Your task to perform on an android device: check google app version Image 0: 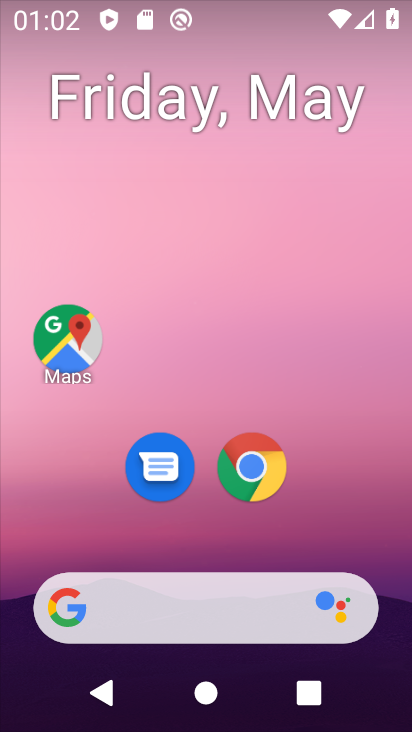
Step 0: press home button
Your task to perform on an android device: check google app version Image 1: 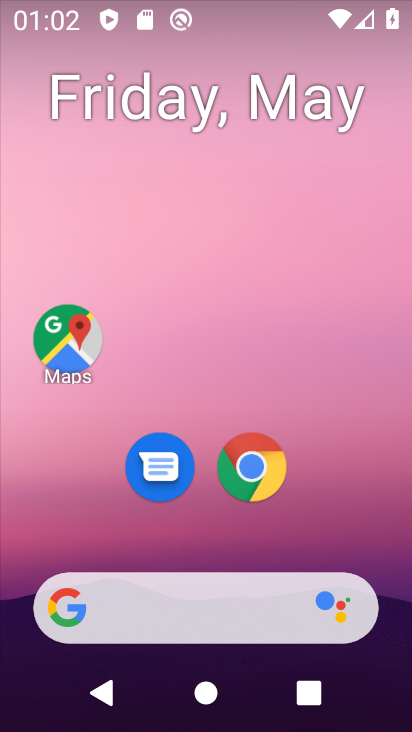
Step 1: drag from (234, 625) to (247, 270)
Your task to perform on an android device: check google app version Image 2: 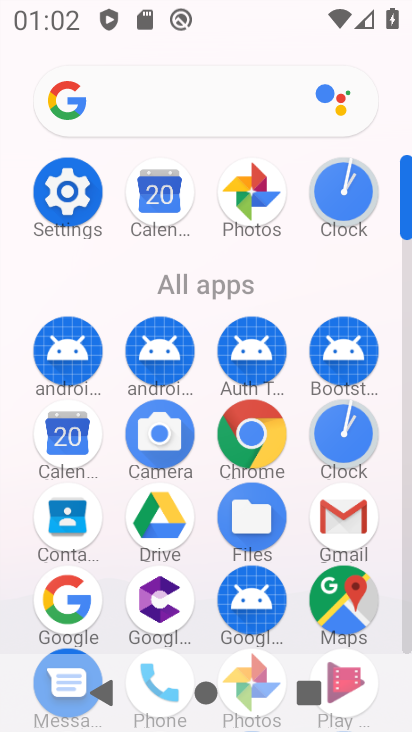
Step 2: click (247, 428)
Your task to perform on an android device: check google app version Image 3: 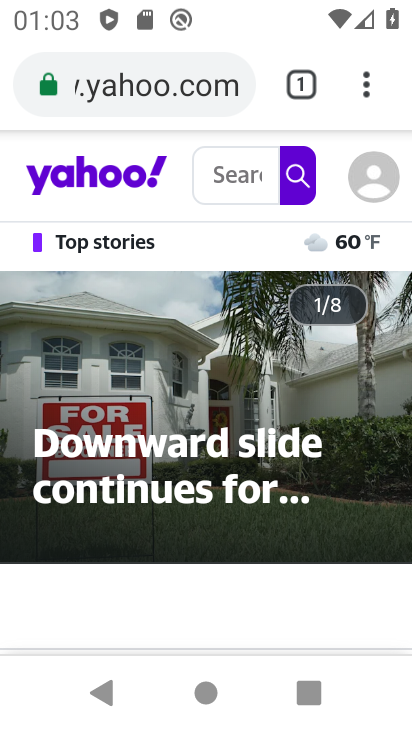
Step 3: click (377, 82)
Your task to perform on an android device: check google app version Image 4: 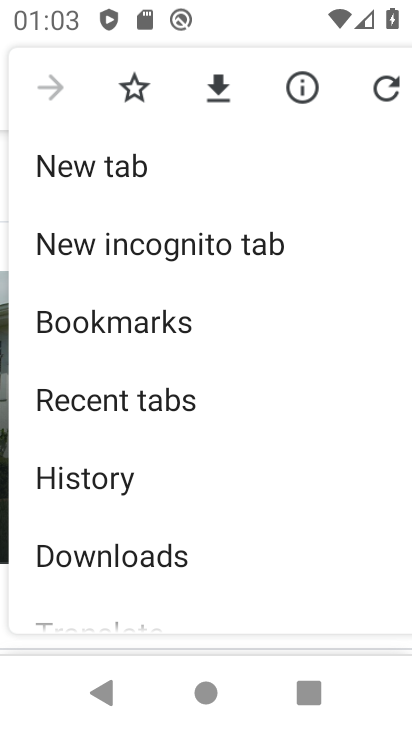
Step 4: drag from (133, 497) to (191, 284)
Your task to perform on an android device: check google app version Image 5: 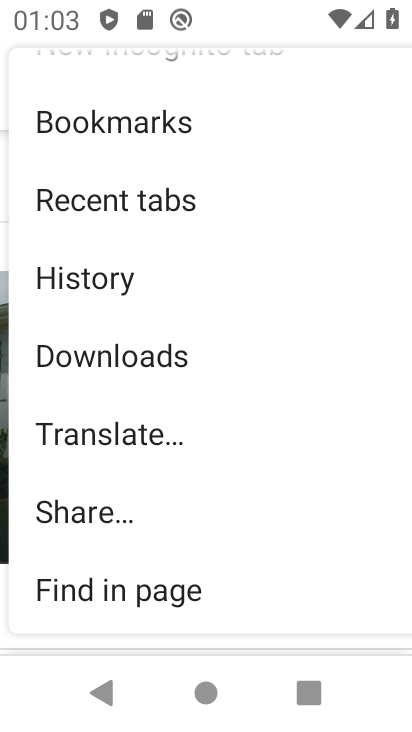
Step 5: drag from (151, 563) to (223, 219)
Your task to perform on an android device: check google app version Image 6: 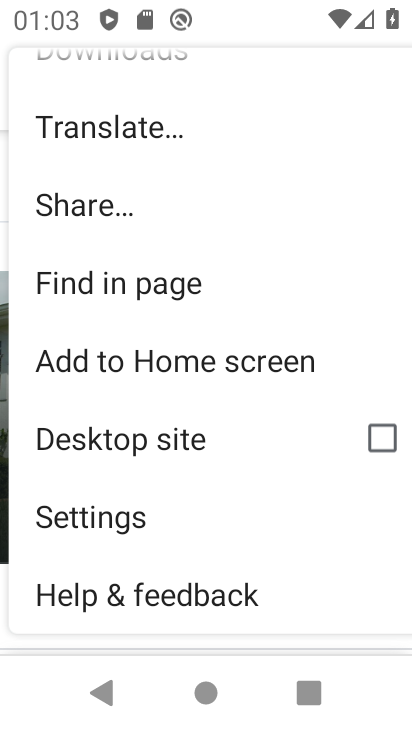
Step 6: drag from (165, 512) to (213, 367)
Your task to perform on an android device: check google app version Image 7: 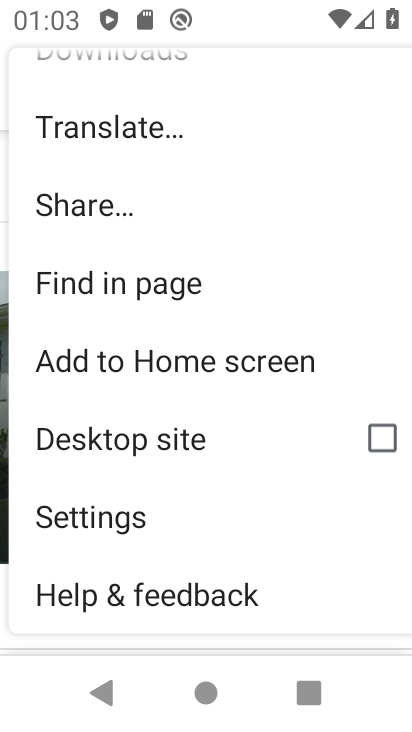
Step 7: click (148, 516)
Your task to perform on an android device: check google app version Image 8: 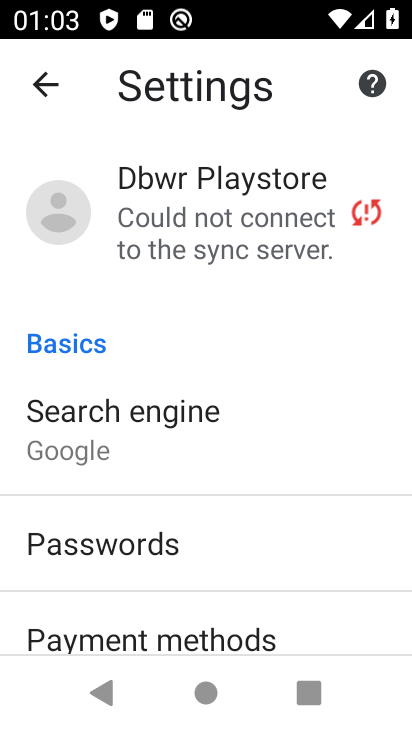
Step 8: drag from (119, 565) to (189, 331)
Your task to perform on an android device: check google app version Image 9: 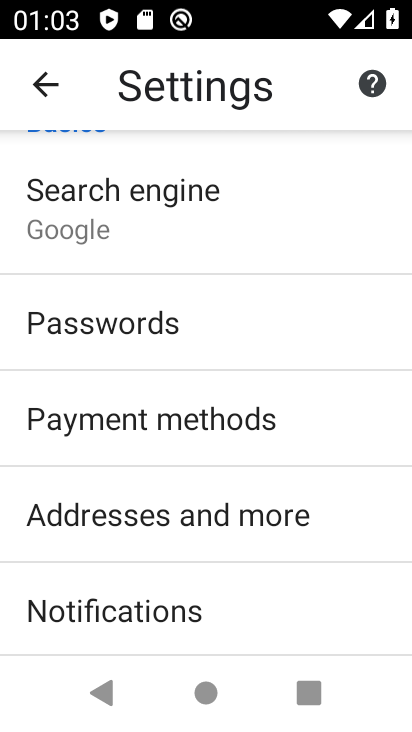
Step 9: drag from (88, 599) to (127, 211)
Your task to perform on an android device: check google app version Image 10: 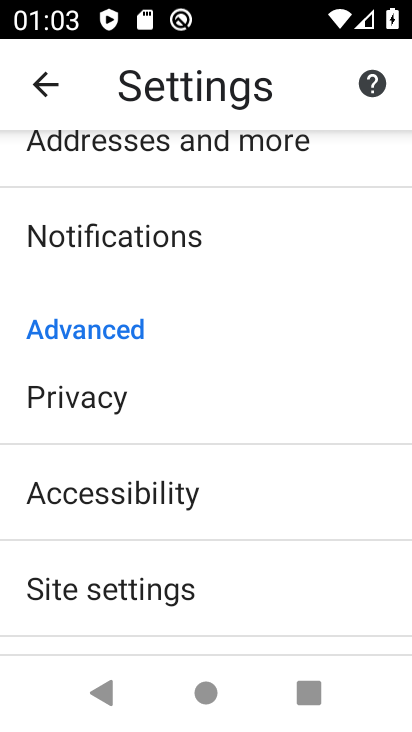
Step 10: drag from (154, 490) to (215, 239)
Your task to perform on an android device: check google app version Image 11: 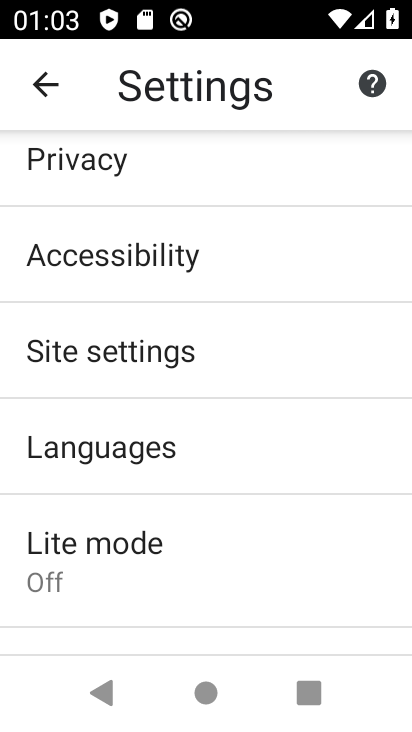
Step 11: drag from (153, 405) to (209, 191)
Your task to perform on an android device: check google app version Image 12: 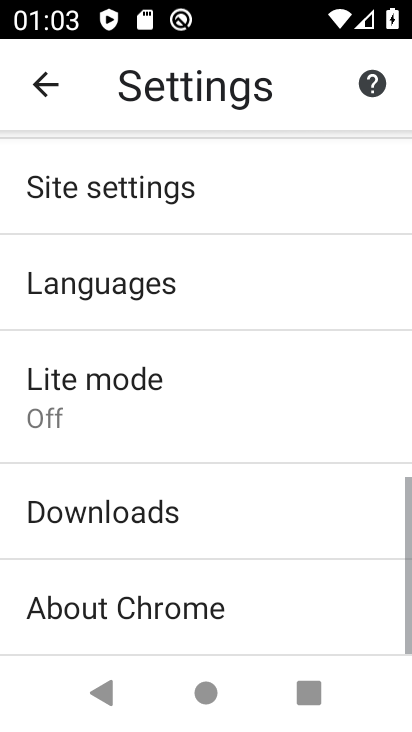
Step 12: drag from (154, 517) to (177, 261)
Your task to perform on an android device: check google app version Image 13: 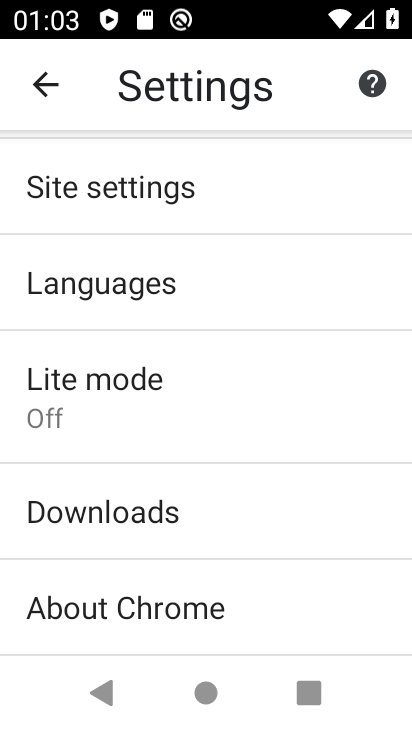
Step 13: click (117, 596)
Your task to perform on an android device: check google app version Image 14: 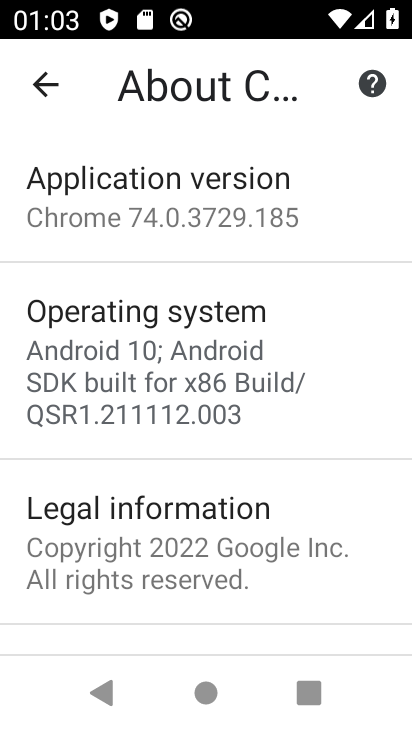
Step 14: click (162, 220)
Your task to perform on an android device: check google app version Image 15: 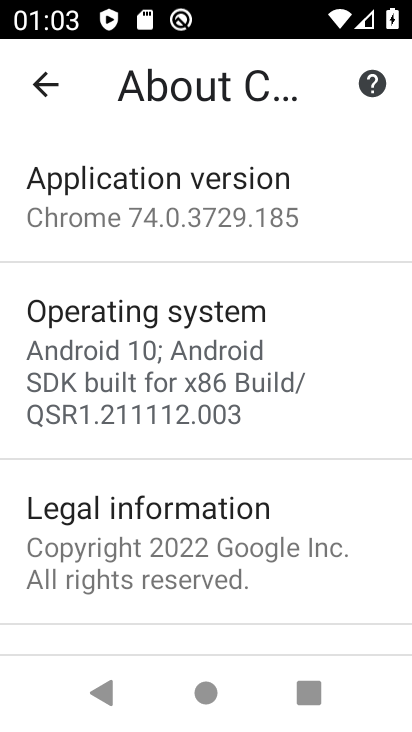
Step 15: task complete